Your task to perform on an android device: turn off location Image 0: 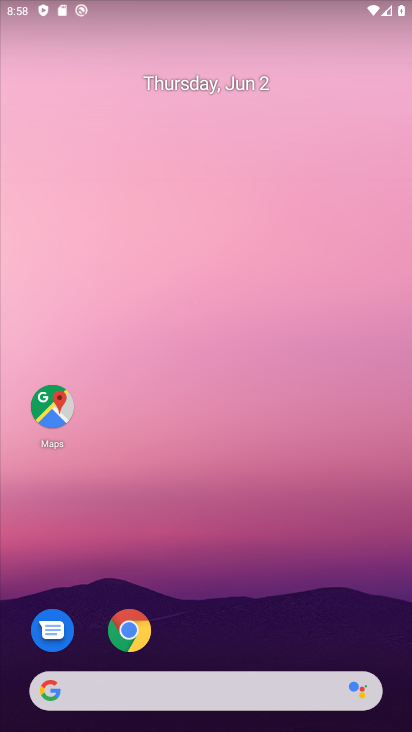
Step 0: drag from (157, 683) to (274, 143)
Your task to perform on an android device: turn off location Image 1: 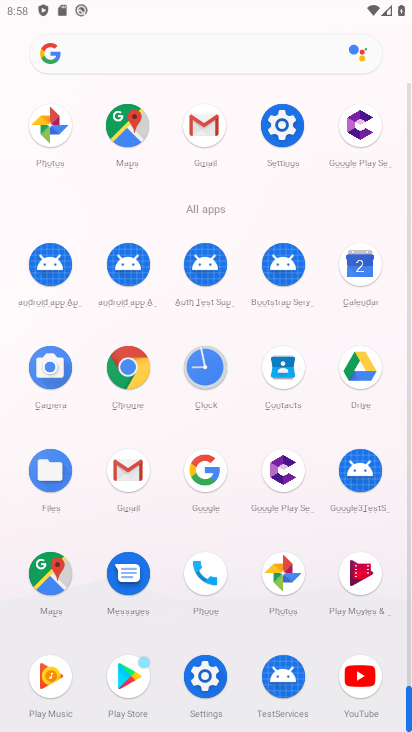
Step 1: drag from (152, 609) to (210, 315)
Your task to perform on an android device: turn off location Image 2: 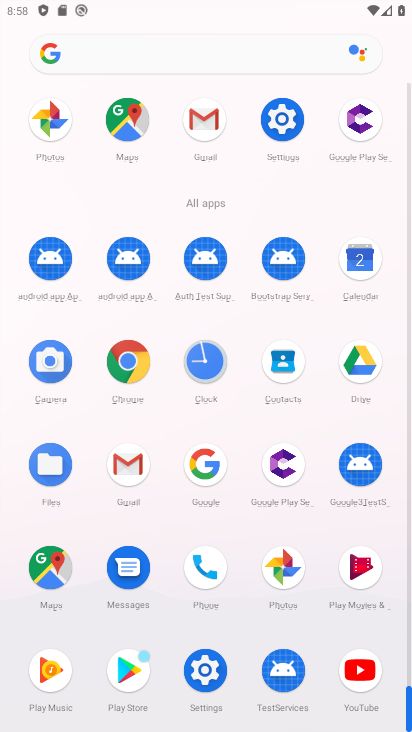
Step 2: click (195, 693)
Your task to perform on an android device: turn off location Image 3: 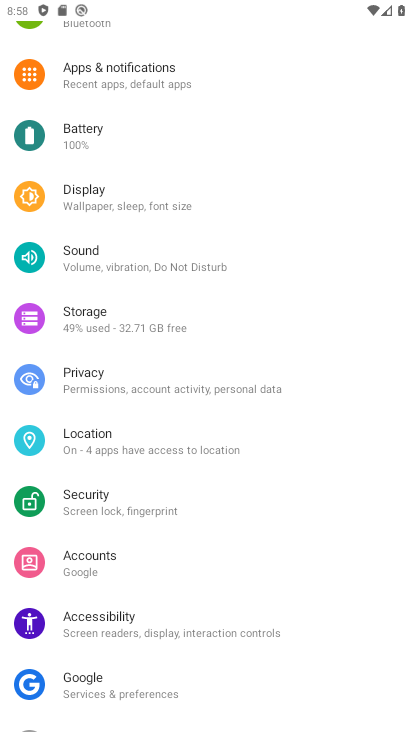
Step 3: click (138, 431)
Your task to perform on an android device: turn off location Image 4: 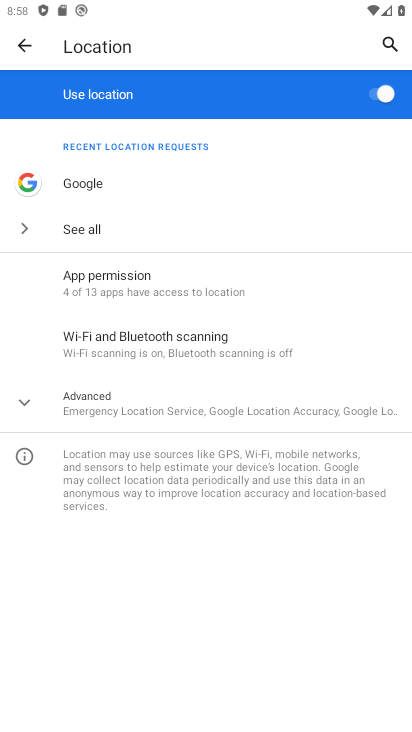
Step 4: click (384, 89)
Your task to perform on an android device: turn off location Image 5: 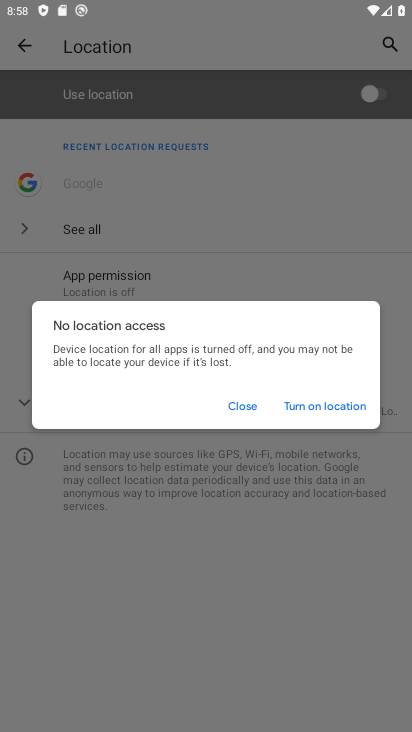
Step 5: task complete